Your task to perform on an android device: turn off airplane mode Image 0: 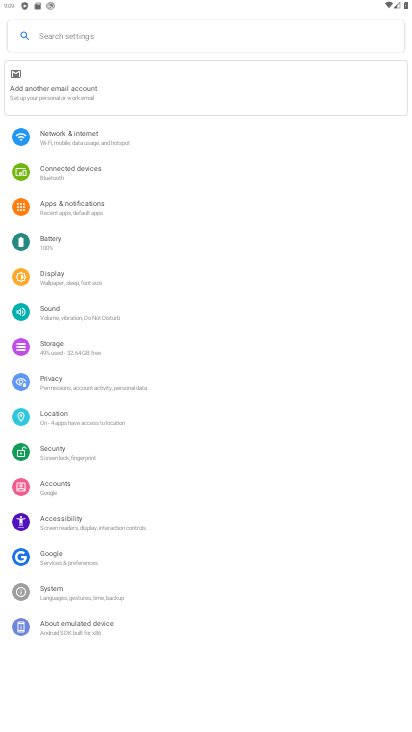
Step 0: press home button
Your task to perform on an android device: turn off airplane mode Image 1: 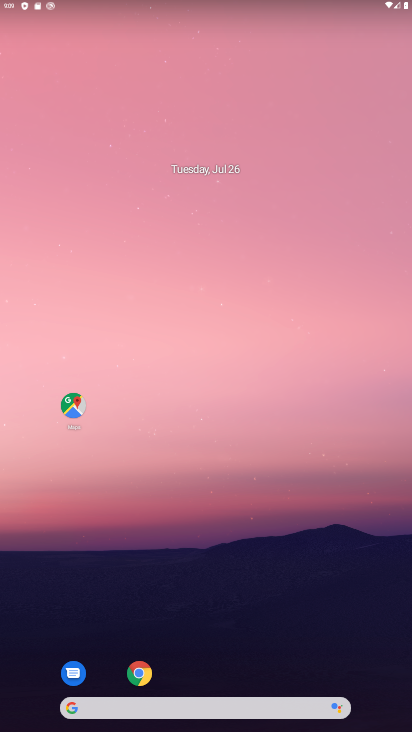
Step 1: drag from (165, 697) to (336, 52)
Your task to perform on an android device: turn off airplane mode Image 2: 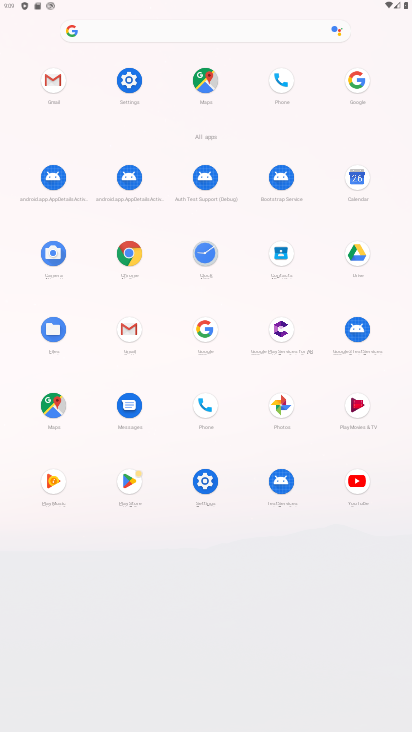
Step 2: click (130, 88)
Your task to perform on an android device: turn off airplane mode Image 3: 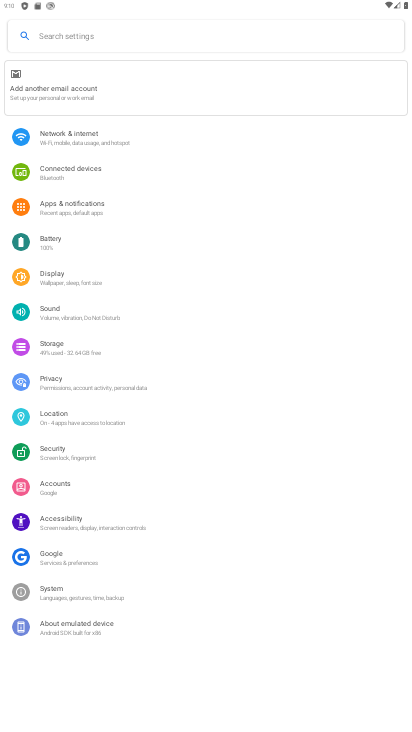
Step 3: click (82, 141)
Your task to perform on an android device: turn off airplane mode Image 4: 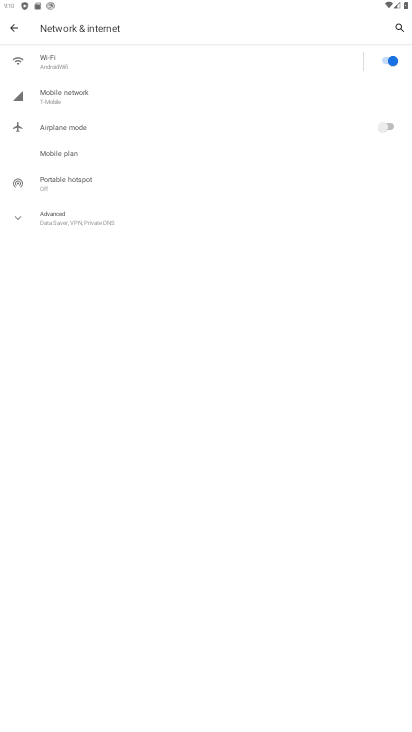
Step 4: task complete